Your task to perform on an android device: Go to Maps Image 0: 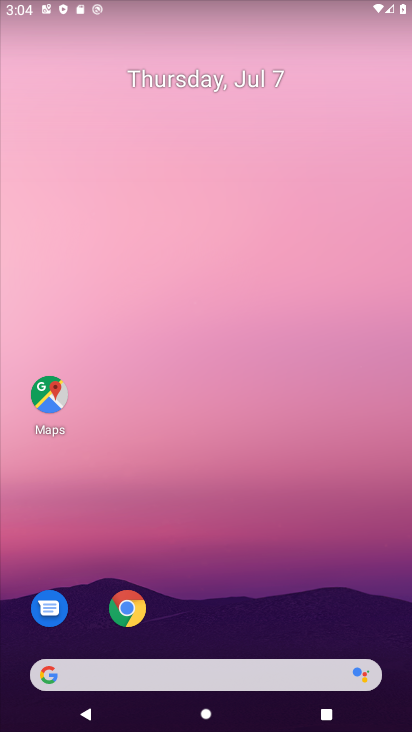
Step 0: click (50, 394)
Your task to perform on an android device: Go to Maps Image 1: 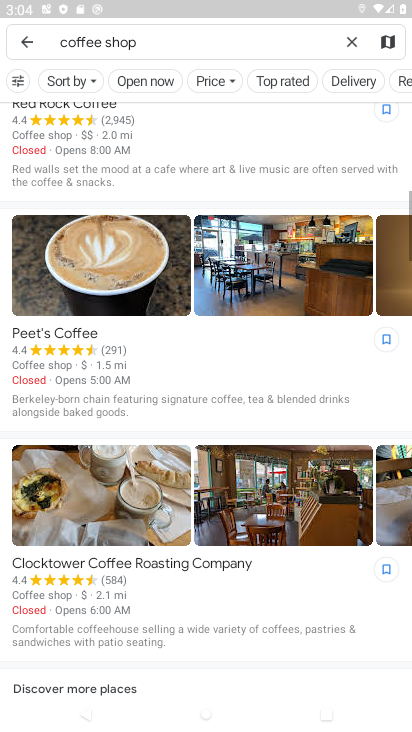
Step 1: click (347, 40)
Your task to perform on an android device: Go to Maps Image 2: 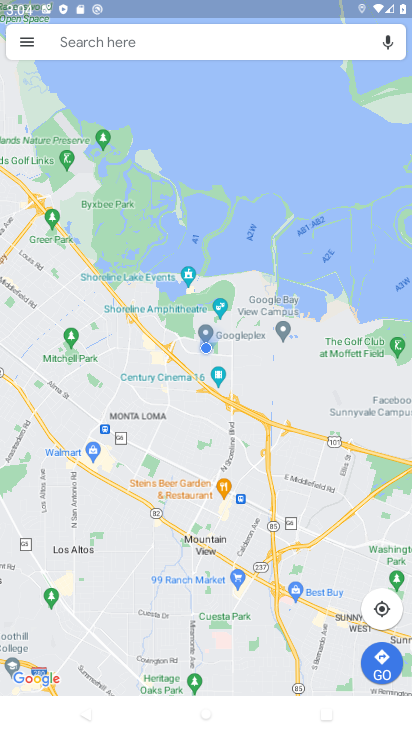
Step 2: task complete